Your task to perform on an android device: Open Google Chrome Image 0: 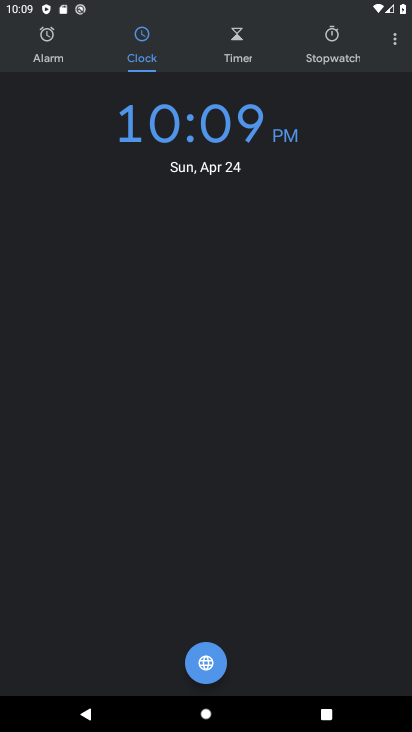
Step 0: press back button
Your task to perform on an android device: Open Google Chrome Image 1: 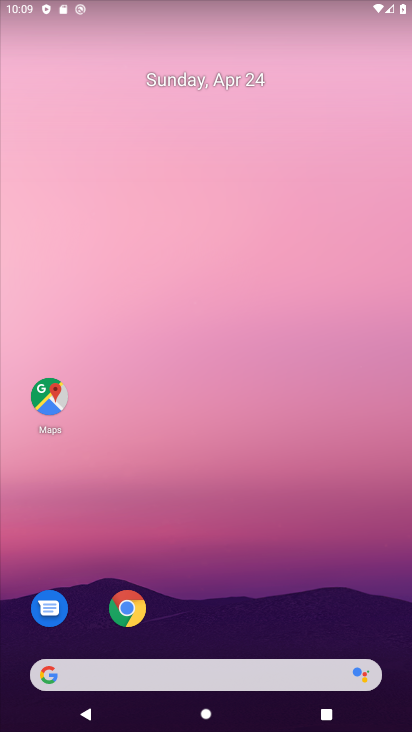
Step 1: drag from (265, 593) to (244, 33)
Your task to perform on an android device: Open Google Chrome Image 2: 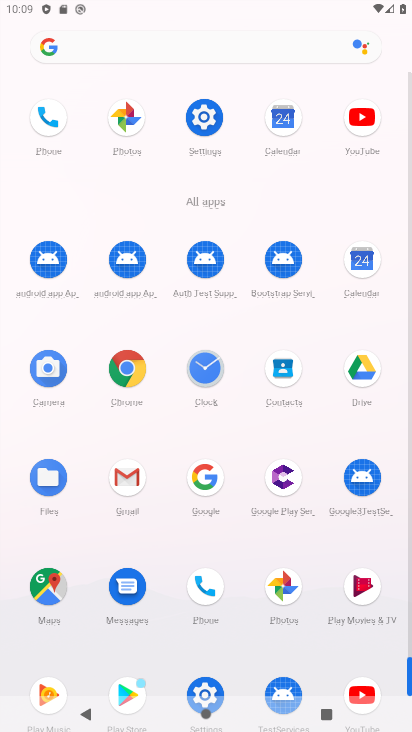
Step 2: click (125, 369)
Your task to perform on an android device: Open Google Chrome Image 3: 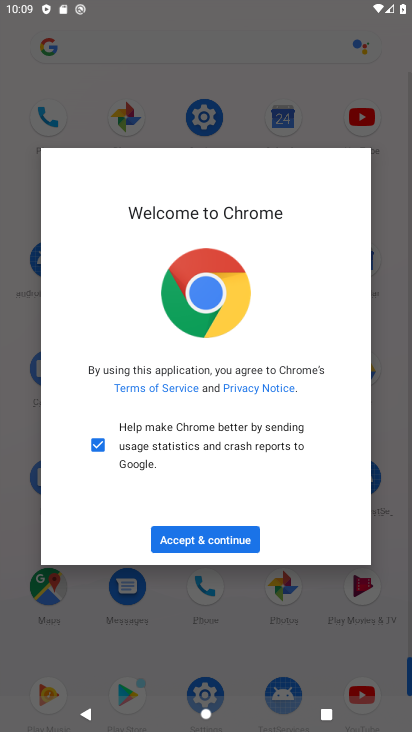
Step 3: press back button
Your task to perform on an android device: Open Google Chrome Image 4: 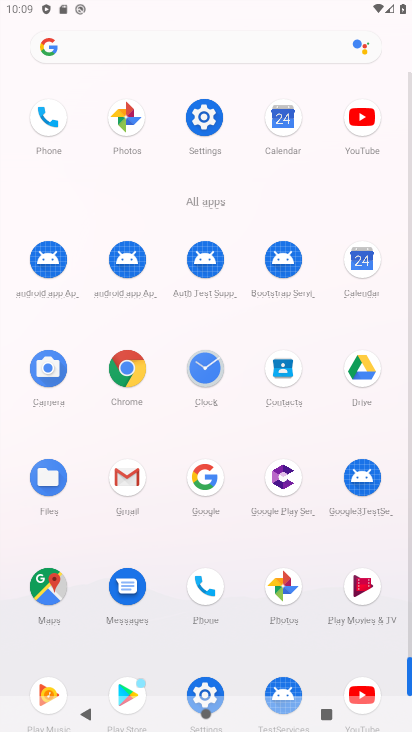
Step 4: click (120, 364)
Your task to perform on an android device: Open Google Chrome Image 5: 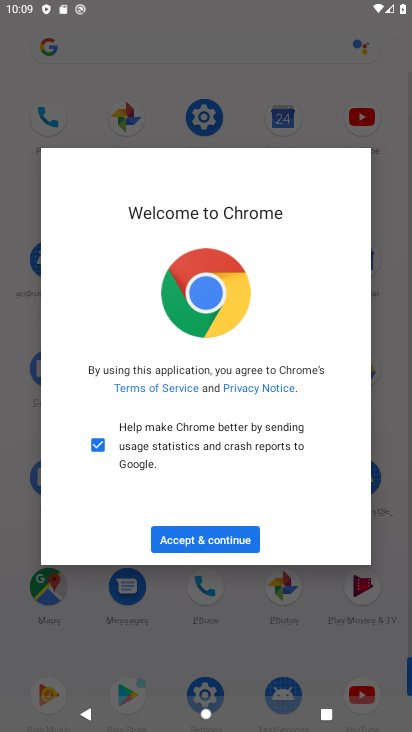
Step 5: click (221, 533)
Your task to perform on an android device: Open Google Chrome Image 6: 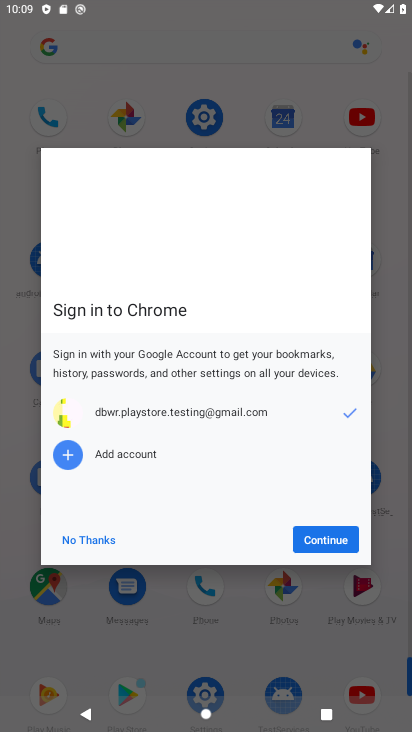
Step 6: click (318, 533)
Your task to perform on an android device: Open Google Chrome Image 7: 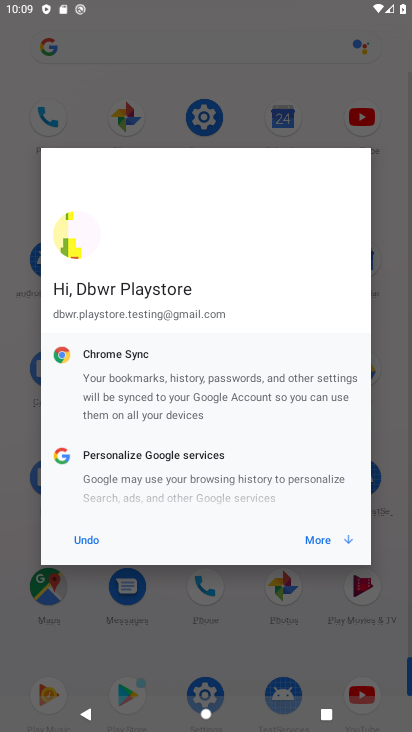
Step 7: click (318, 533)
Your task to perform on an android device: Open Google Chrome Image 8: 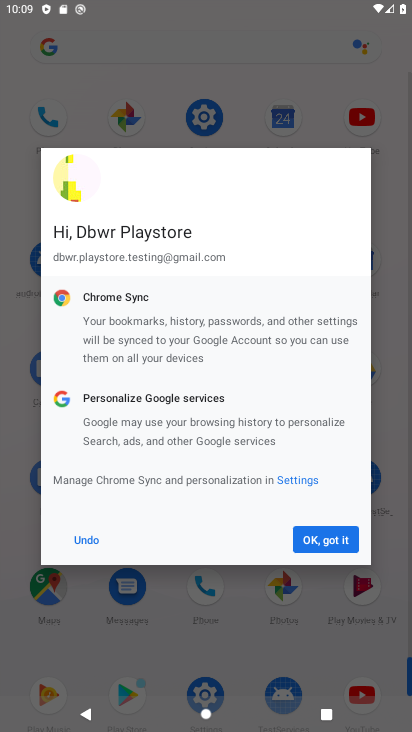
Step 8: click (318, 533)
Your task to perform on an android device: Open Google Chrome Image 9: 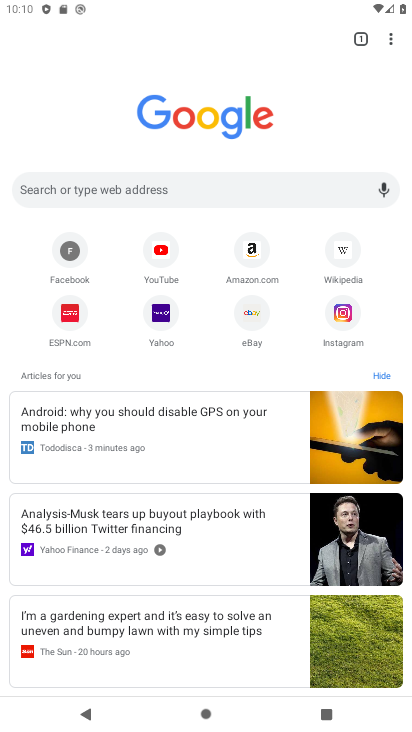
Step 9: task complete